Your task to perform on an android device: Go to location settings Image 0: 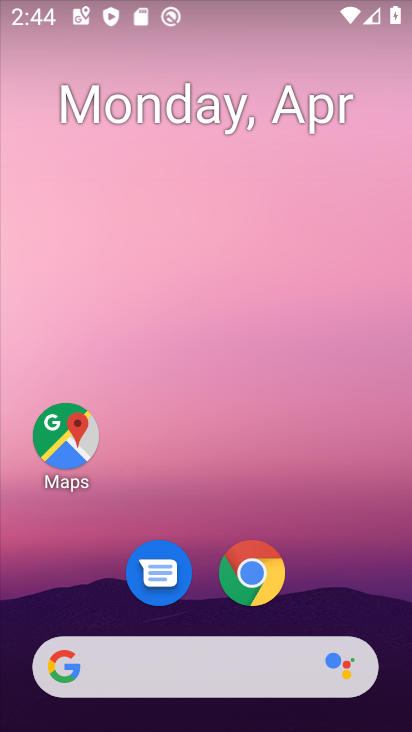
Step 0: drag from (362, 592) to (359, 132)
Your task to perform on an android device: Go to location settings Image 1: 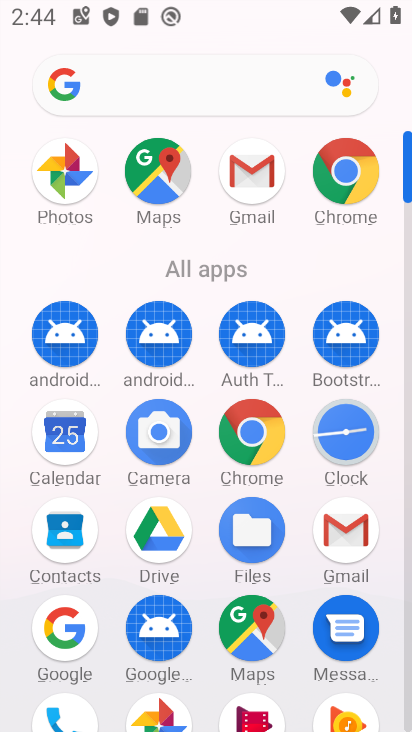
Step 1: drag from (389, 584) to (402, 293)
Your task to perform on an android device: Go to location settings Image 2: 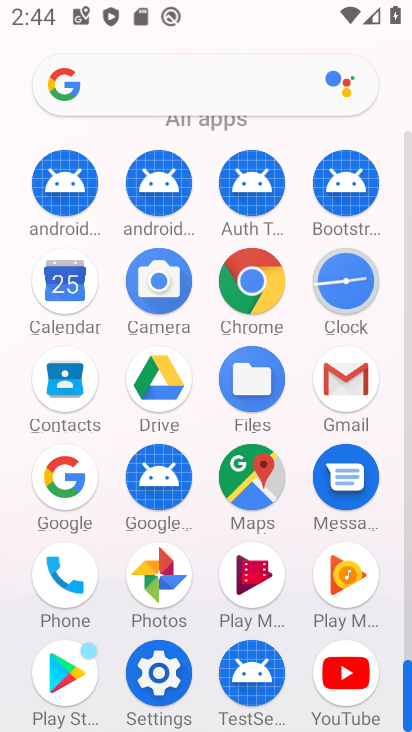
Step 2: click (162, 666)
Your task to perform on an android device: Go to location settings Image 3: 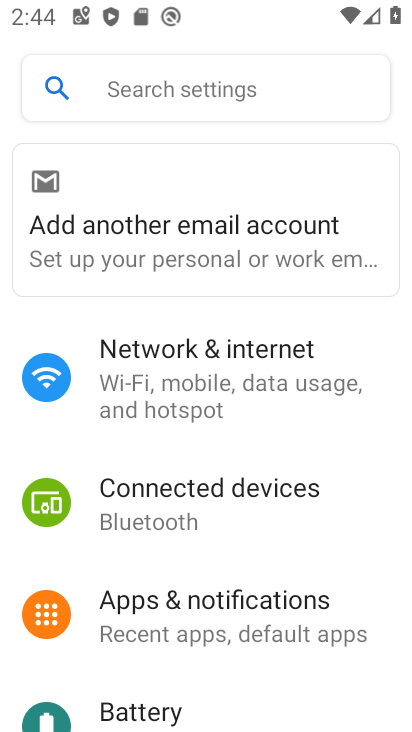
Step 3: drag from (376, 552) to (376, 327)
Your task to perform on an android device: Go to location settings Image 4: 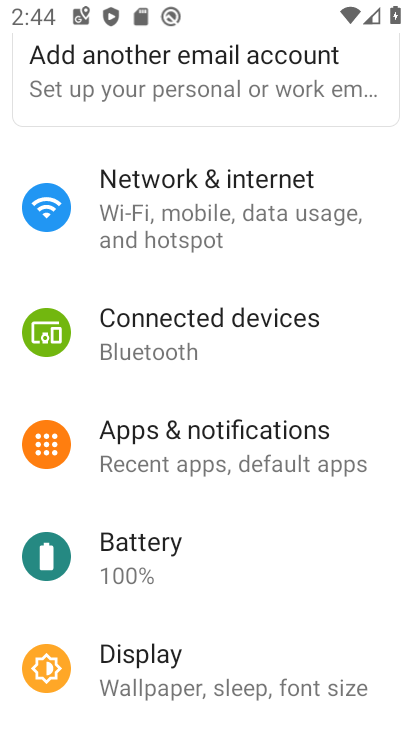
Step 4: drag from (389, 578) to (389, 370)
Your task to perform on an android device: Go to location settings Image 5: 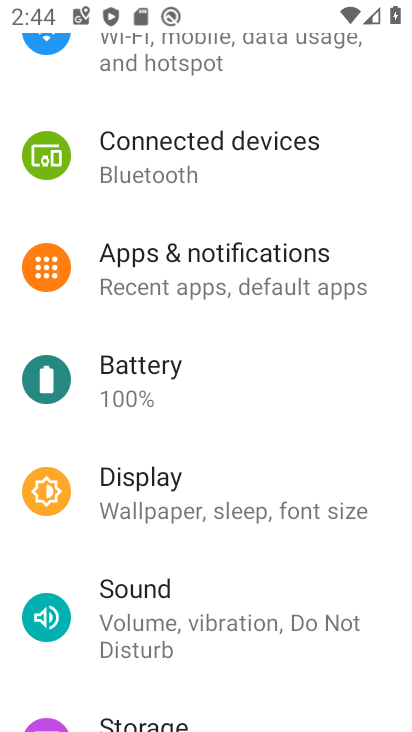
Step 5: drag from (388, 648) to (385, 427)
Your task to perform on an android device: Go to location settings Image 6: 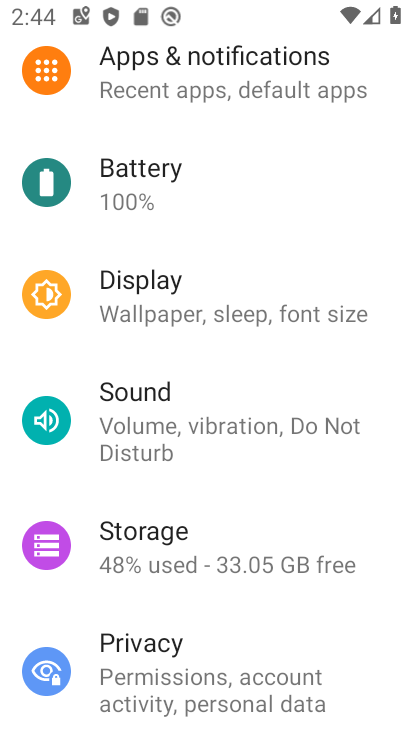
Step 6: drag from (370, 663) to (373, 481)
Your task to perform on an android device: Go to location settings Image 7: 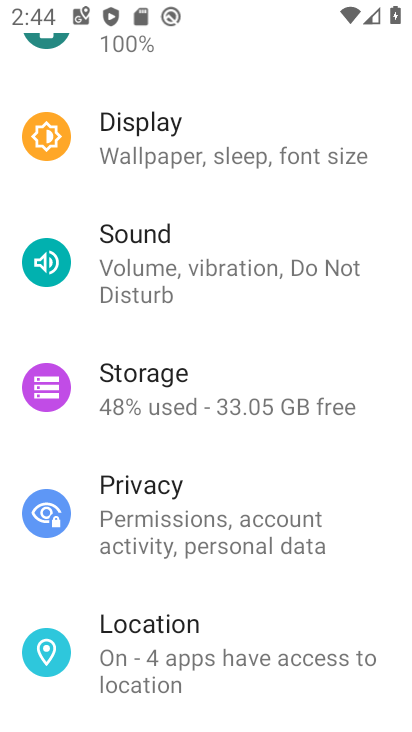
Step 7: drag from (368, 687) to (359, 474)
Your task to perform on an android device: Go to location settings Image 8: 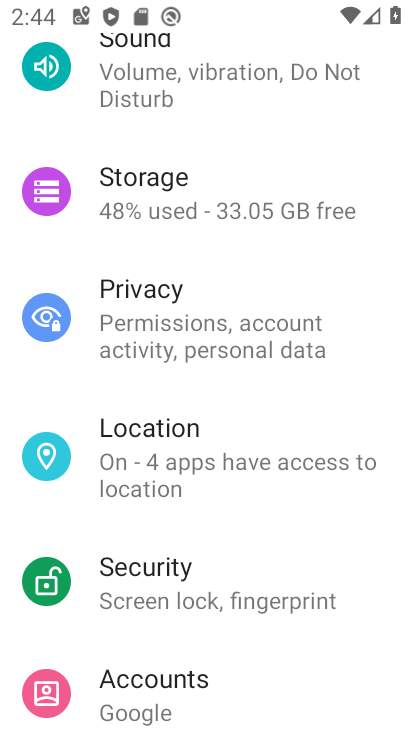
Step 8: click (275, 465)
Your task to perform on an android device: Go to location settings Image 9: 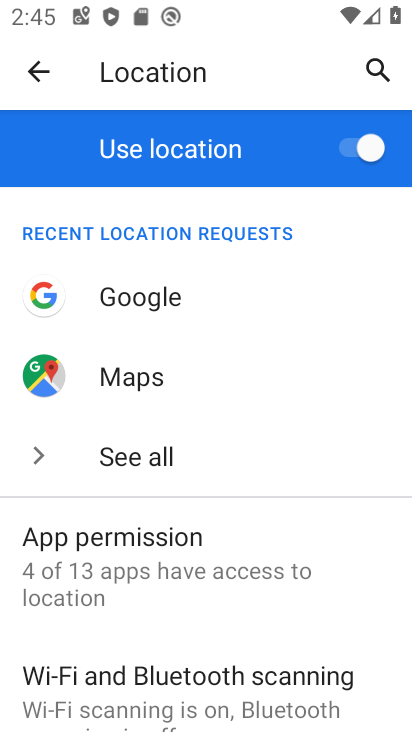
Step 9: task complete